Your task to perform on an android device: visit the assistant section in the google photos Image 0: 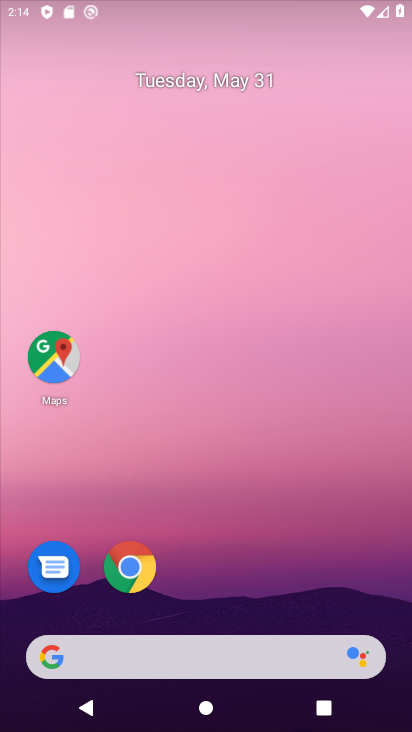
Step 0: drag from (245, 620) to (221, 253)
Your task to perform on an android device: visit the assistant section in the google photos Image 1: 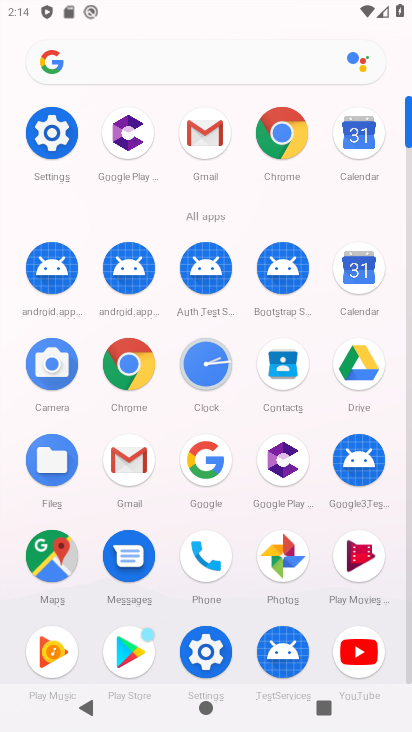
Step 1: click (294, 552)
Your task to perform on an android device: visit the assistant section in the google photos Image 2: 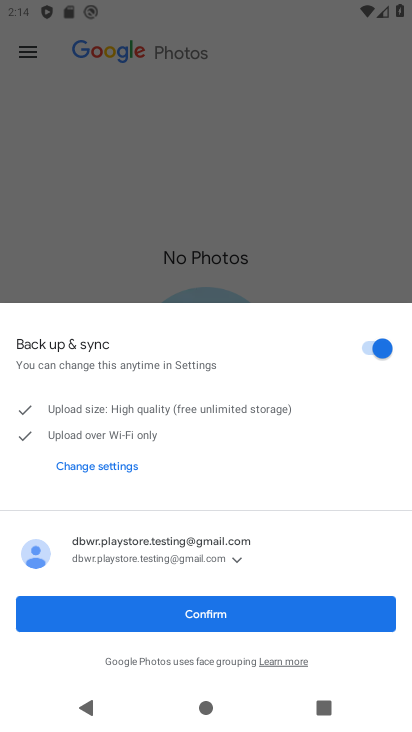
Step 2: click (291, 609)
Your task to perform on an android device: visit the assistant section in the google photos Image 3: 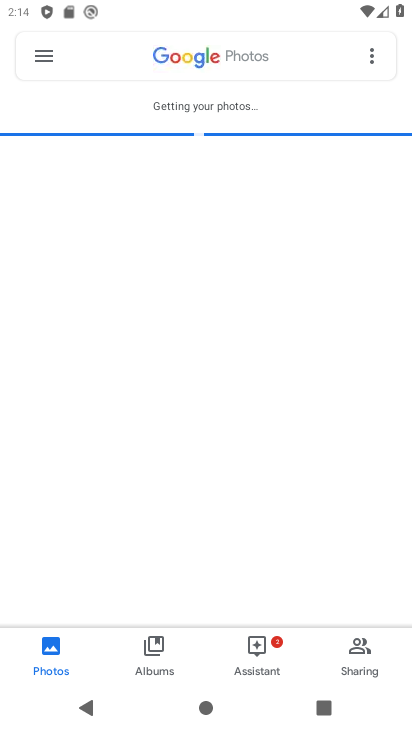
Step 3: click (249, 650)
Your task to perform on an android device: visit the assistant section in the google photos Image 4: 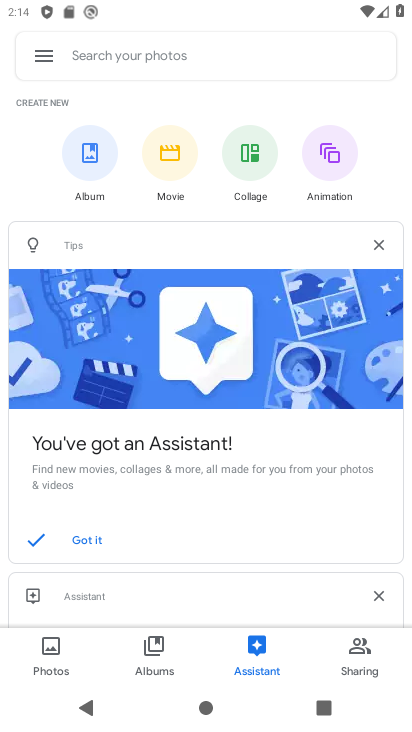
Step 4: task complete